Your task to perform on an android device: change alarm snooze length Image 0: 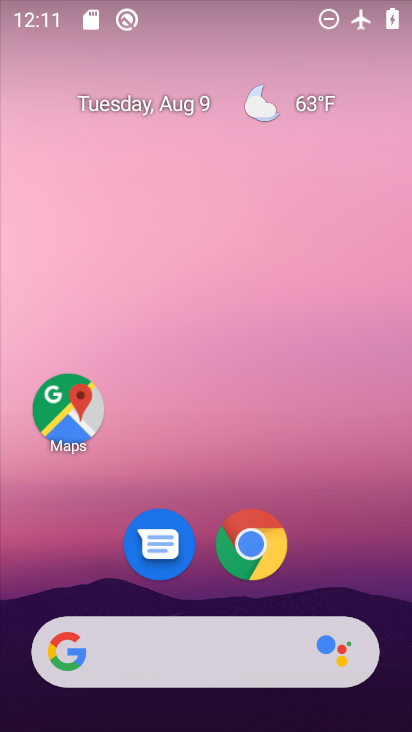
Step 0: drag from (182, 640) to (182, 138)
Your task to perform on an android device: change alarm snooze length Image 1: 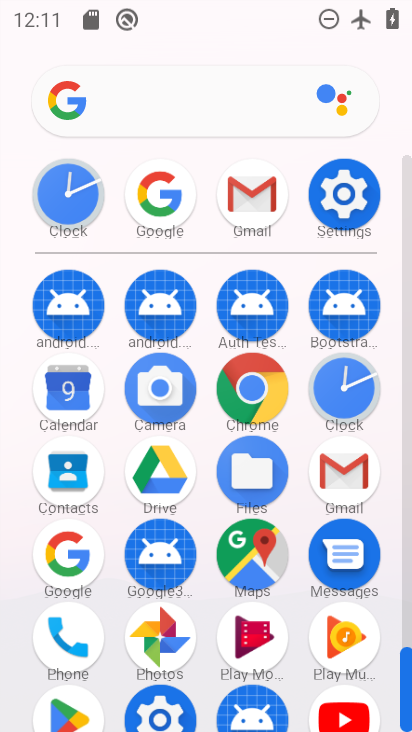
Step 1: click (344, 387)
Your task to perform on an android device: change alarm snooze length Image 2: 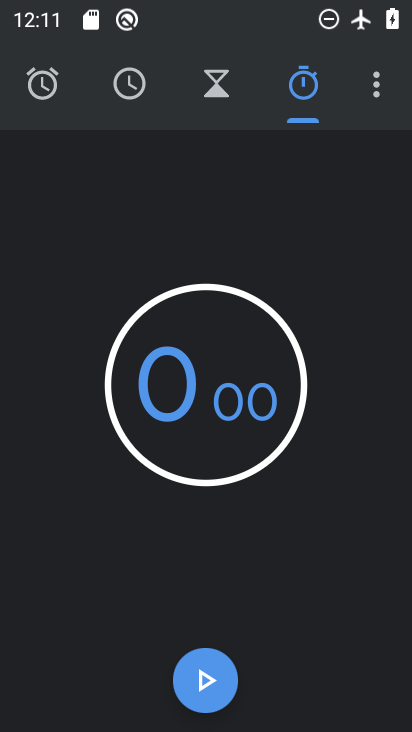
Step 2: click (376, 88)
Your task to perform on an android device: change alarm snooze length Image 3: 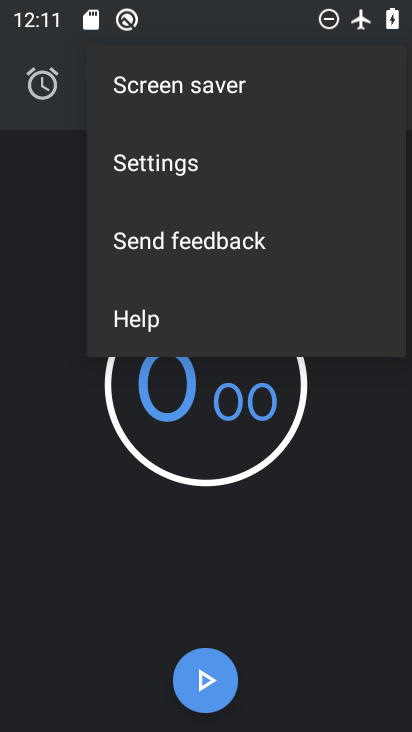
Step 3: click (192, 158)
Your task to perform on an android device: change alarm snooze length Image 4: 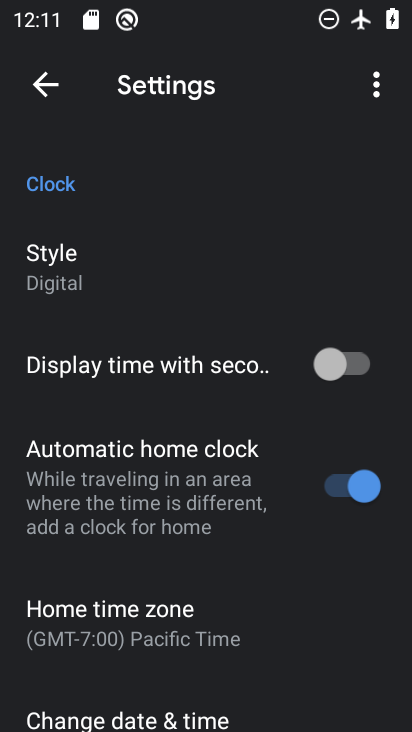
Step 4: drag from (159, 539) to (235, 318)
Your task to perform on an android device: change alarm snooze length Image 5: 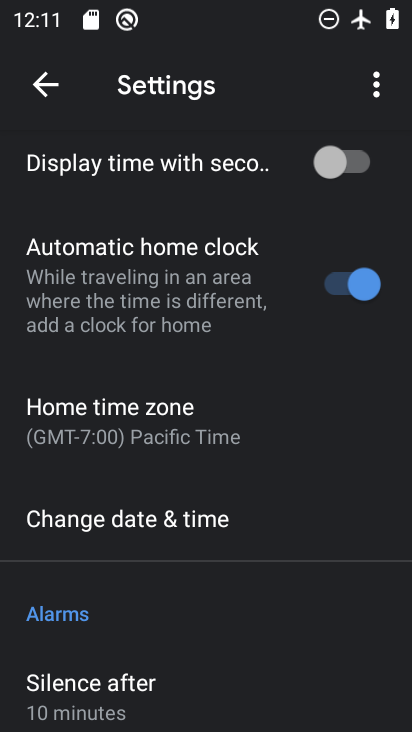
Step 5: drag from (146, 616) to (240, 428)
Your task to perform on an android device: change alarm snooze length Image 6: 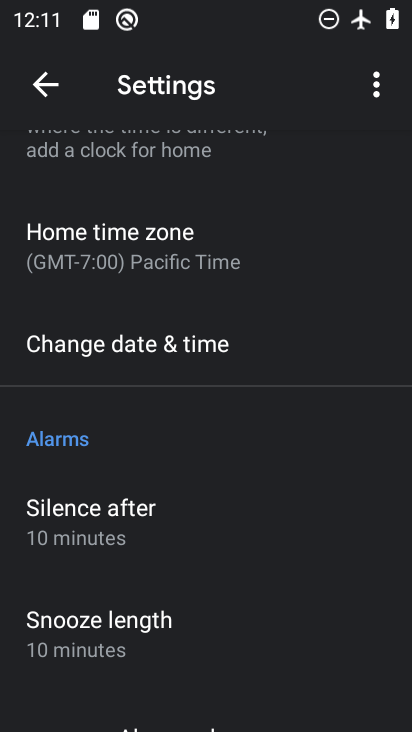
Step 6: click (157, 623)
Your task to perform on an android device: change alarm snooze length Image 7: 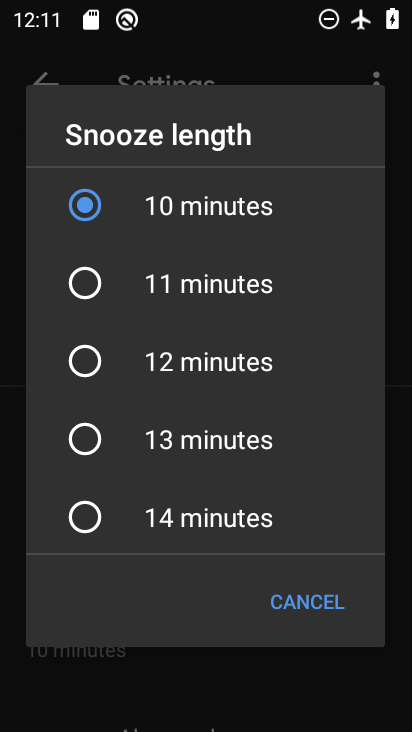
Step 7: drag from (211, 428) to (260, 258)
Your task to perform on an android device: change alarm snooze length Image 8: 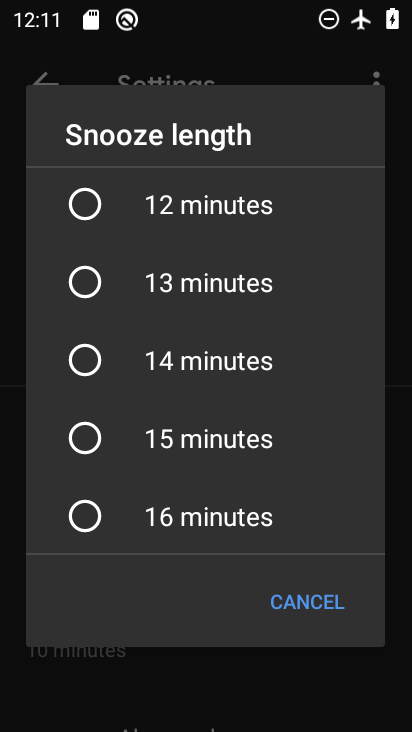
Step 8: click (89, 368)
Your task to perform on an android device: change alarm snooze length Image 9: 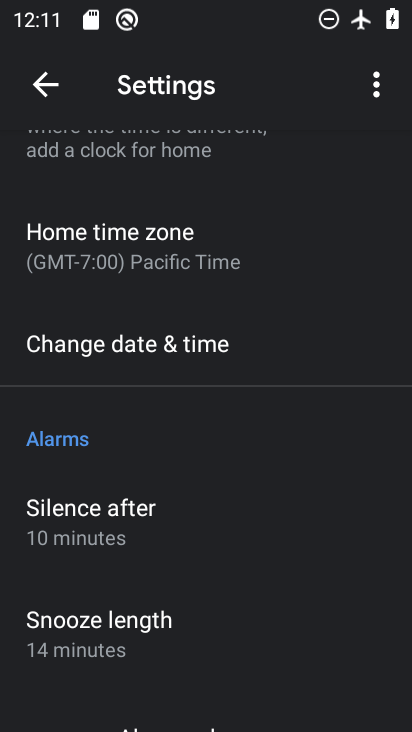
Step 9: task complete